Your task to perform on an android device: check the backup settings in the google photos Image 0: 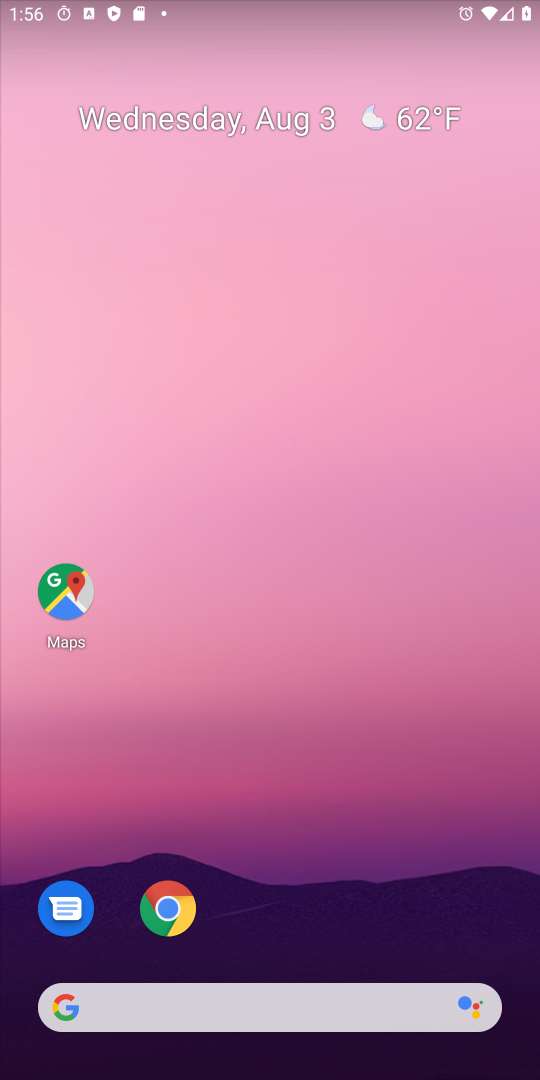
Step 0: drag from (356, 354) to (400, 213)
Your task to perform on an android device: check the backup settings in the google photos Image 1: 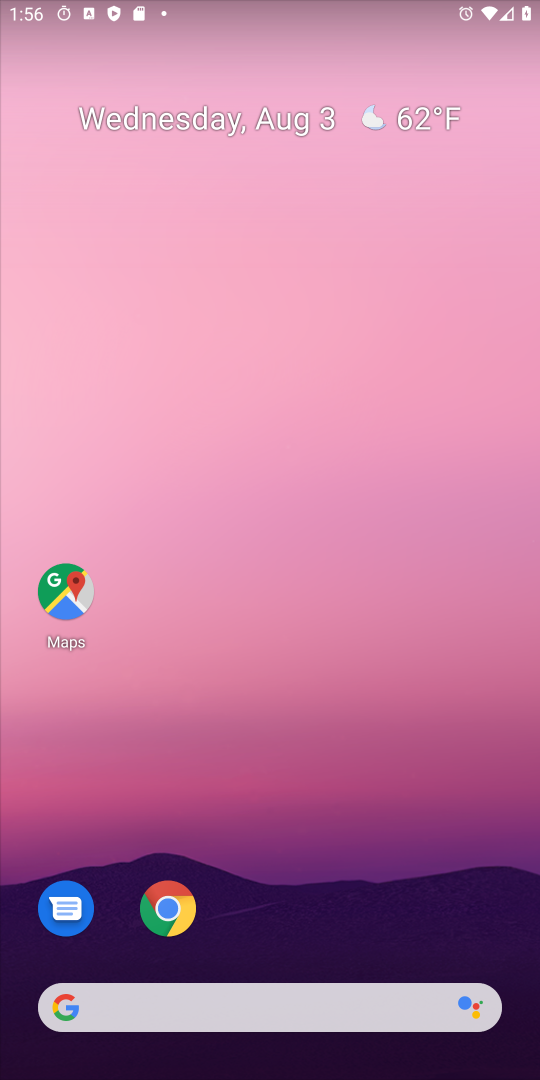
Step 1: drag from (317, 827) to (272, 37)
Your task to perform on an android device: check the backup settings in the google photos Image 2: 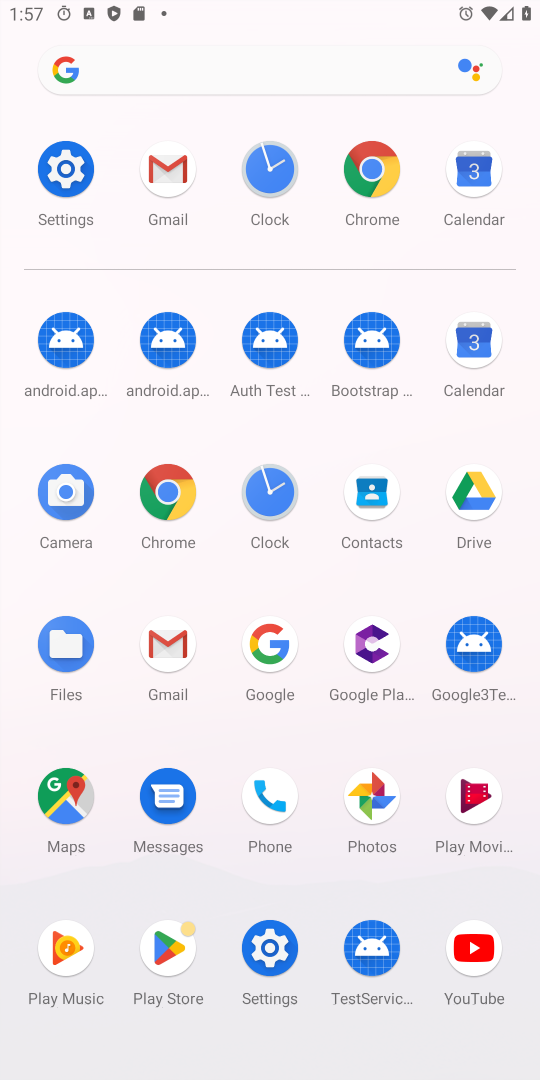
Step 2: click (373, 808)
Your task to perform on an android device: check the backup settings in the google photos Image 3: 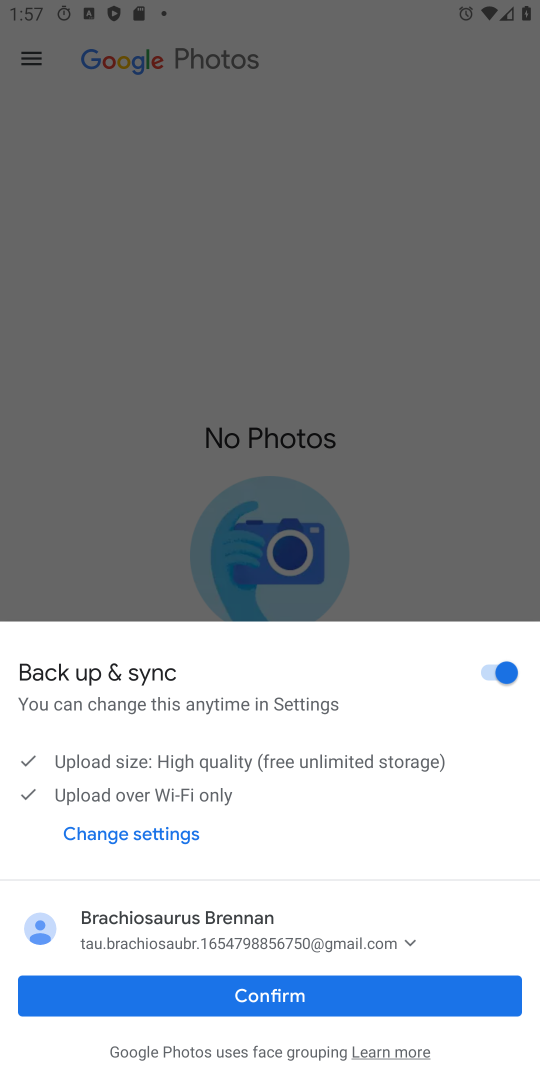
Step 3: click (390, 985)
Your task to perform on an android device: check the backup settings in the google photos Image 4: 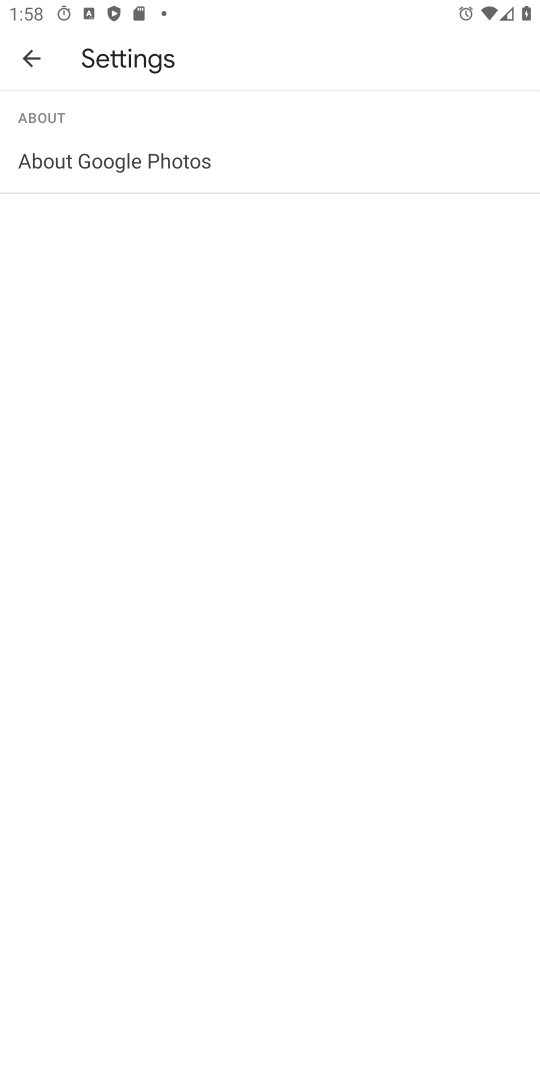
Step 4: task complete